Your task to perform on an android device: Go to accessibility settings Image 0: 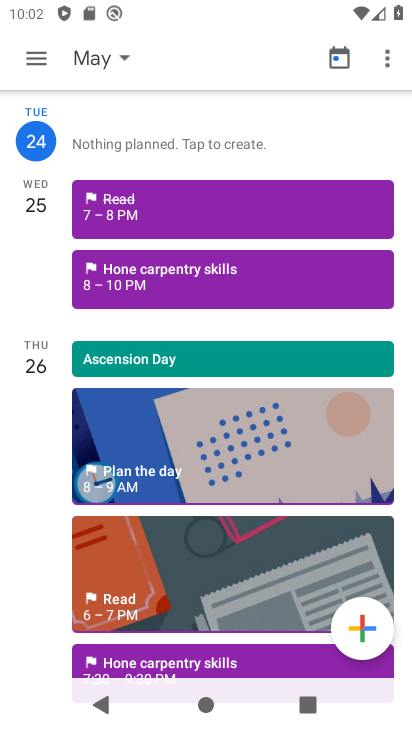
Step 0: press home button
Your task to perform on an android device: Go to accessibility settings Image 1: 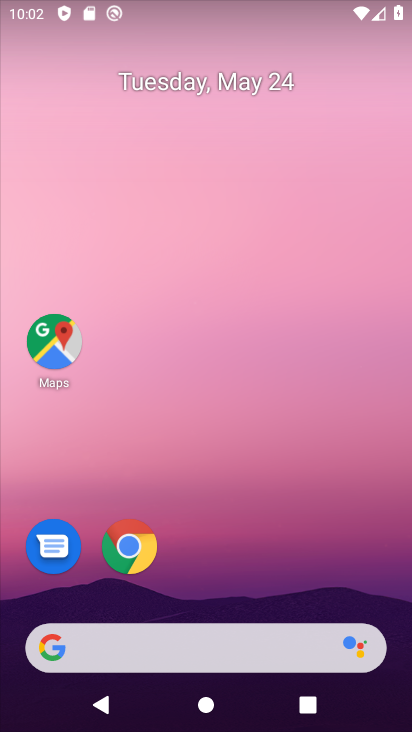
Step 1: drag from (263, 533) to (299, 150)
Your task to perform on an android device: Go to accessibility settings Image 2: 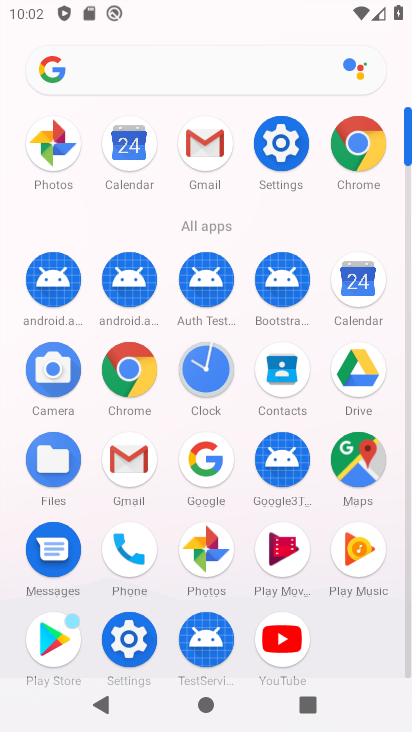
Step 2: click (284, 148)
Your task to perform on an android device: Go to accessibility settings Image 3: 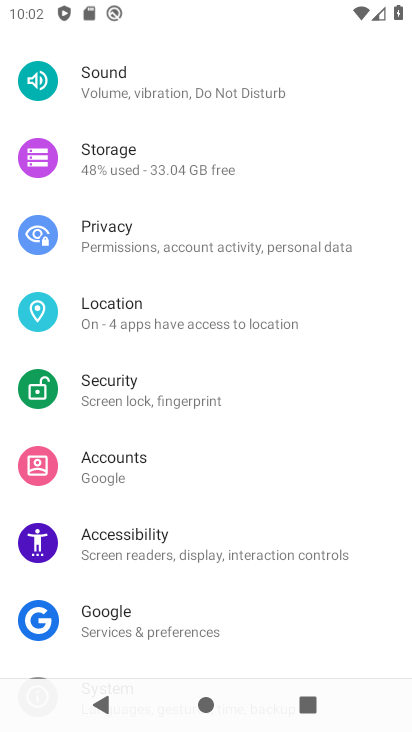
Step 3: drag from (225, 562) to (265, 146)
Your task to perform on an android device: Go to accessibility settings Image 4: 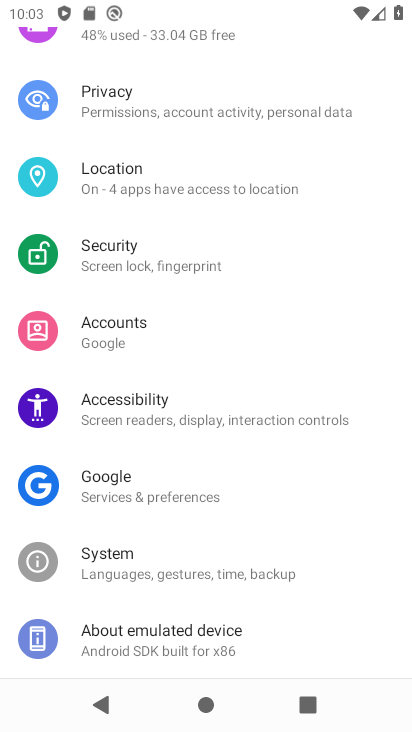
Step 4: click (149, 421)
Your task to perform on an android device: Go to accessibility settings Image 5: 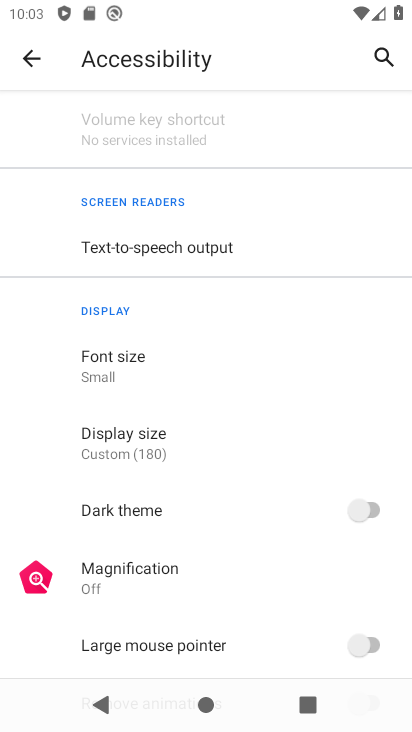
Step 5: task complete